Your task to perform on an android device: Open location settings Image 0: 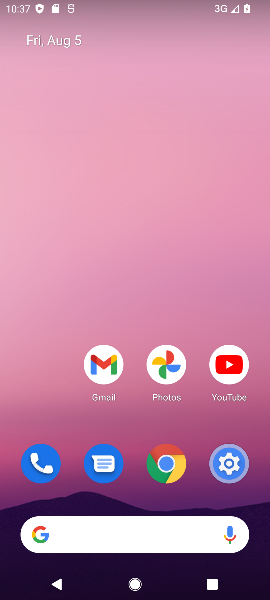
Step 0: drag from (144, 513) to (154, 192)
Your task to perform on an android device: Open location settings Image 1: 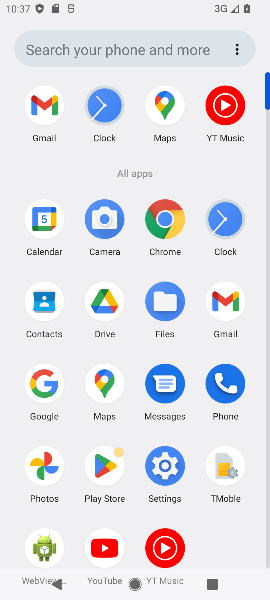
Step 1: click (161, 458)
Your task to perform on an android device: Open location settings Image 2: 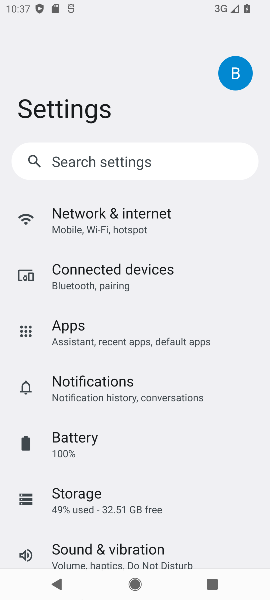
Step 2: drag from (114, 549) to (138, 337)
Your task to perform on an android device: Open location settings Image 3: 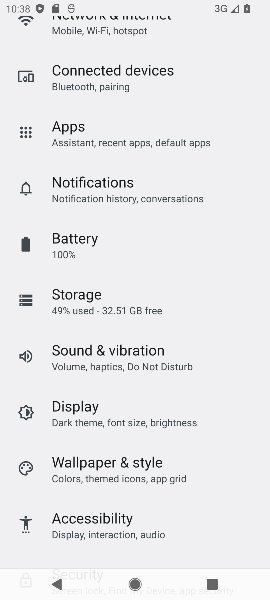
Step 3: drag from (116, 464) to (134, 305)
Your task to perform on an android device: Open location settings Image 4: 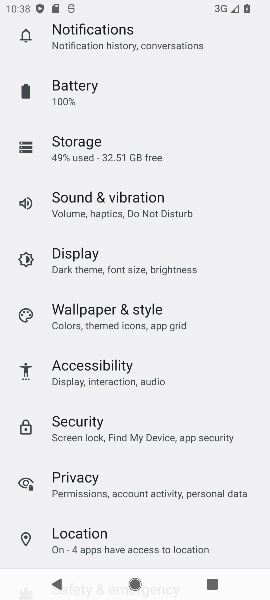
Step 4: click (92, 542)
Your task to perform on an android device: Open location settings Image 5: 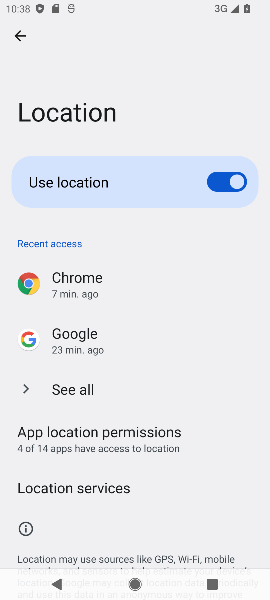
Step 5: task complete